Your task to perform on an android device: turn off data saver in the chrome app Image 0: 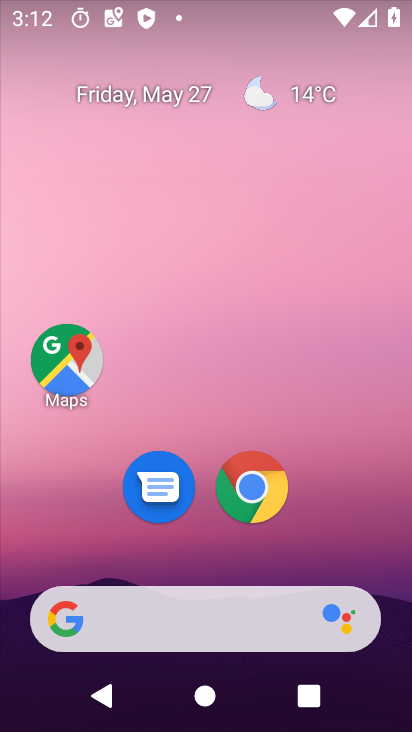
Step 0: drag from (320, 528) to (325, 85)
Your task to perform on an android device: turn off data saver in the chrome app Image 1: 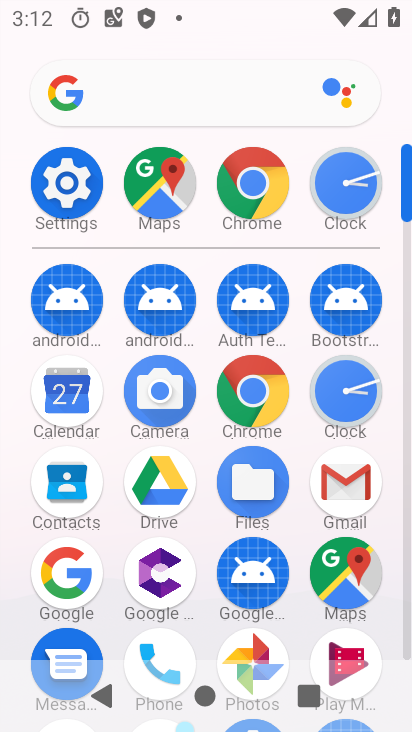
Step 1: click (256, 393)
Your task to perform on an android device: turn off data saver in the chrome app Image 2: 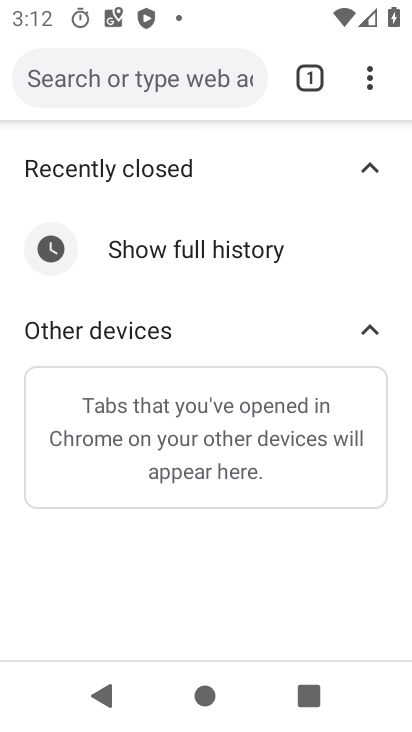
Step 2: click (375, 67)
Your task to perform on an android device: turn off data saver in the chrome app Image 3: 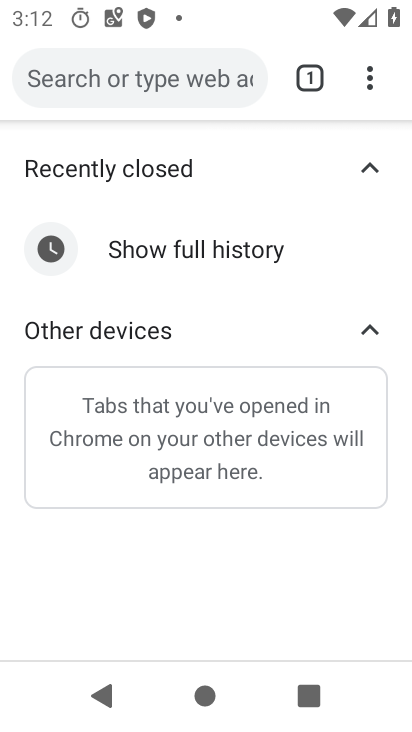
Step 3: drag from (362, 83) to (212, 571)
Your task to perform on an android device: turn off data saver in the chrome app Image 4: 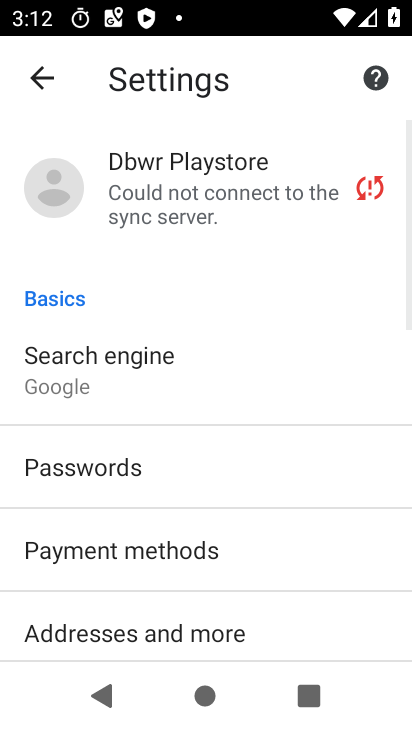
Step 4: drag from (215, 536) to (233, 212)
Your task to perform on an android device: turn off data saver in the chrome app Image 5: 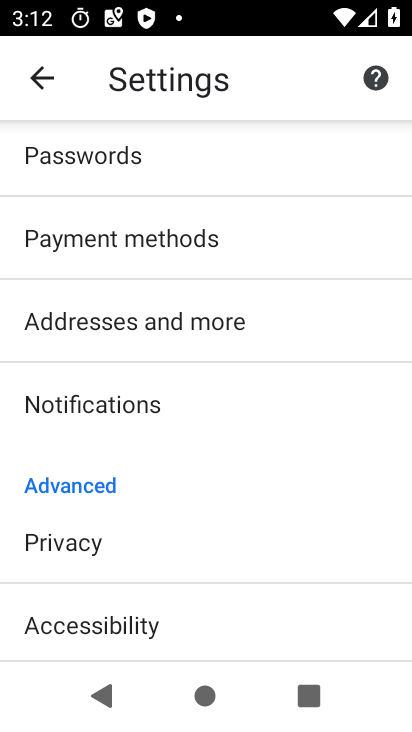
Step 5: drag from (236, 507) to (256, 286)
Your task to perform on an android device: turn off data saver in the chrome app Image 6: 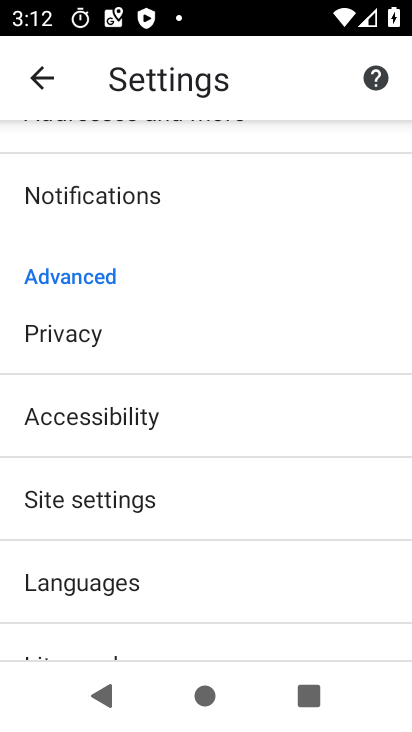
Step 6: drag from (173, 490) to (243, 189)
Your task to perform on an android device: turn off data saver in the chrome app Image 7: 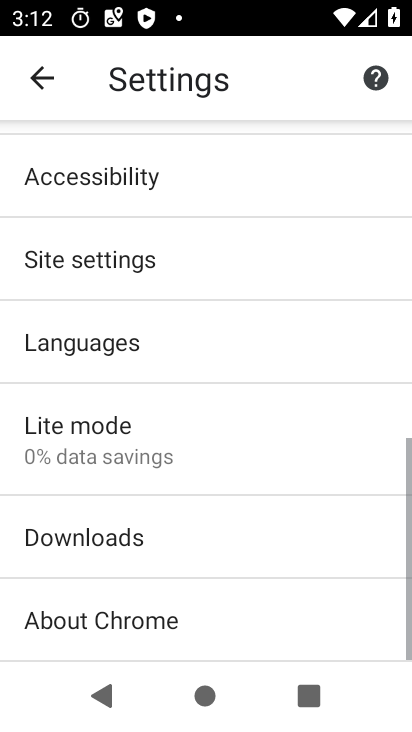
Step 7: click (138, 431)
Your task to perform on an android device: turn off data saver in the chrome app Image 8: 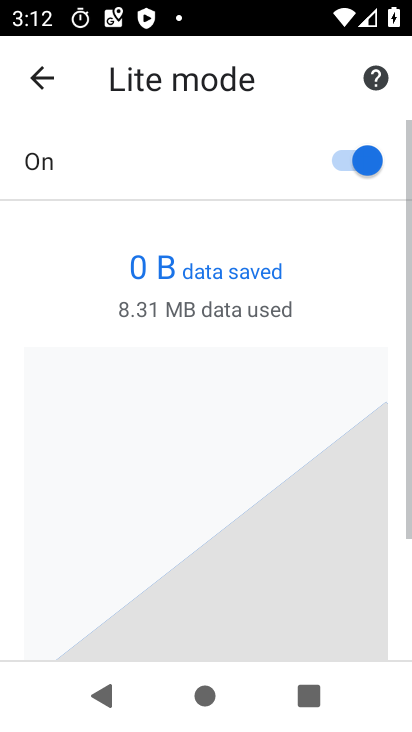
Step 8: click (367, 160)
Your task to perform on an android device: turn off data saver in the chrome app Image 9: 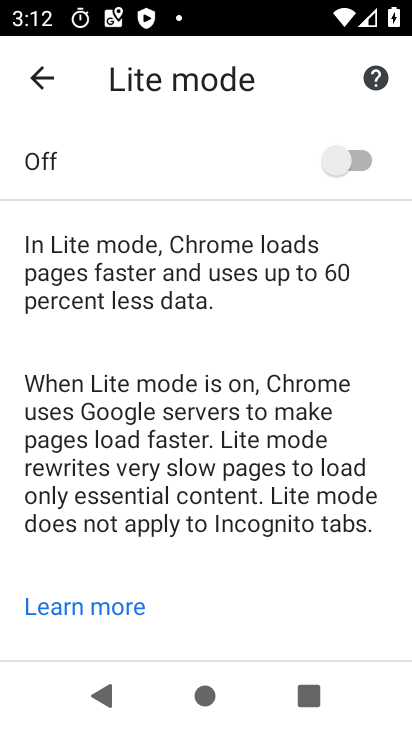
Step 9: task complete